Your task to perform on an android device: Open Amazon Image 0: 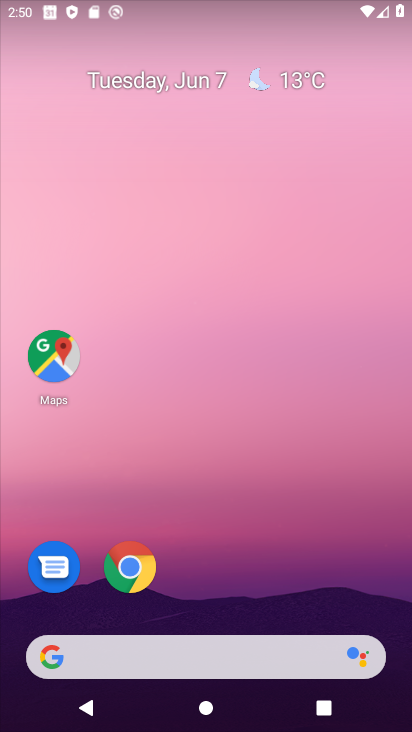
Step 0: click (127, 575)
Your task to perform on an android device: Open Amazon Image 1: 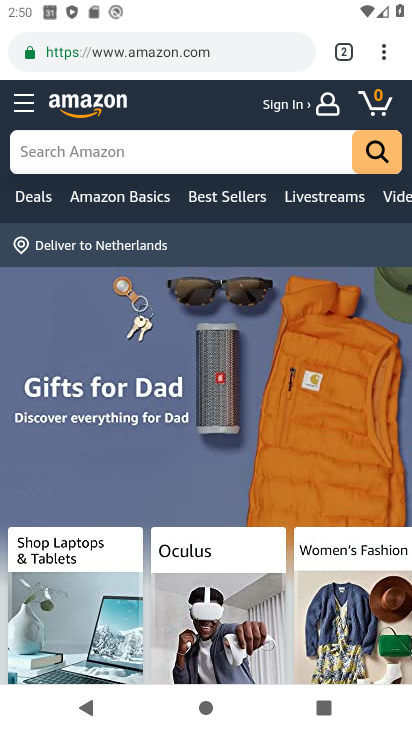
Step 1: task complete